Your task to perform on an android device: Open the calendar and show me this week's events? Image 0: 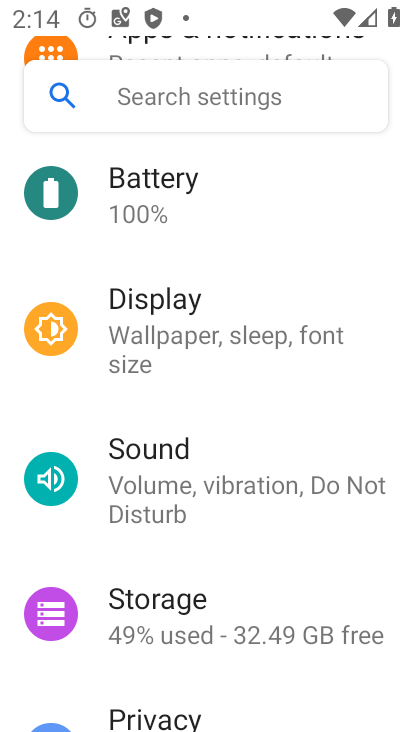
Step 0: press home button
Your task to perform on an android device: Open the calendar and show me this week's events? Image 1: 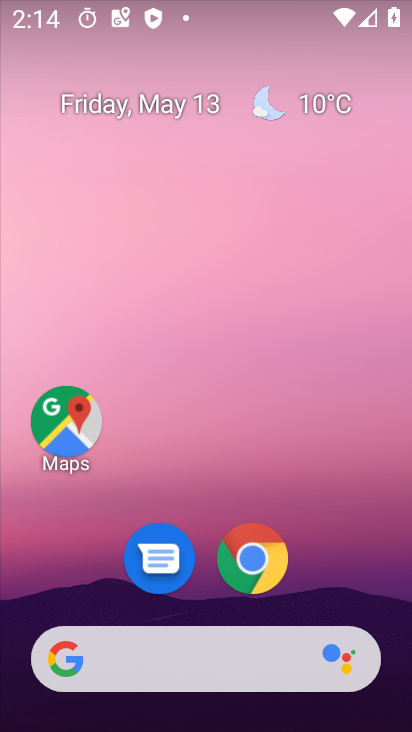
Step 1: drag from (206, 595) to (206, 199)
Your task to perform on an android device: Open the calendar and show me this week's events? Image 2: 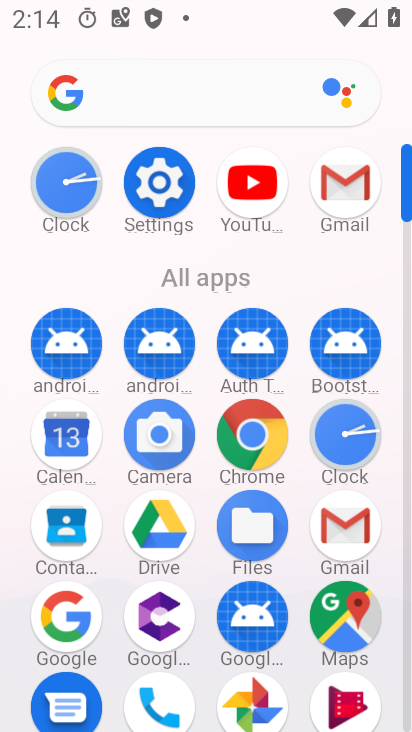
Step 2: click (50, 462)
Your task to perform on an android device: Open the calendar and show me this week's events? Image 3: 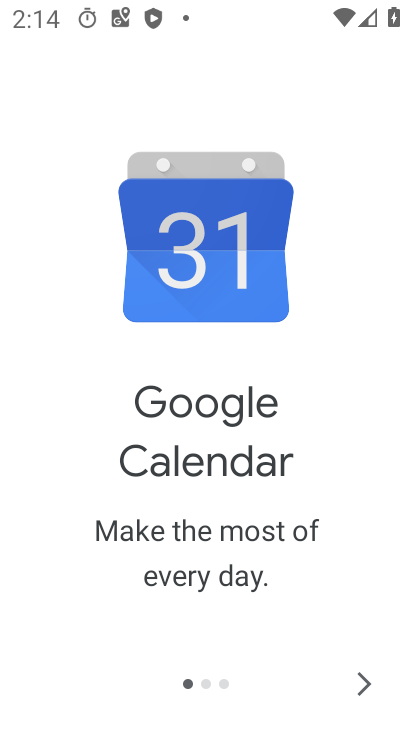
Step 3: click (376, 688)
Your task to perform on an android device: Open the calendar and show me this week's events? Image 4: 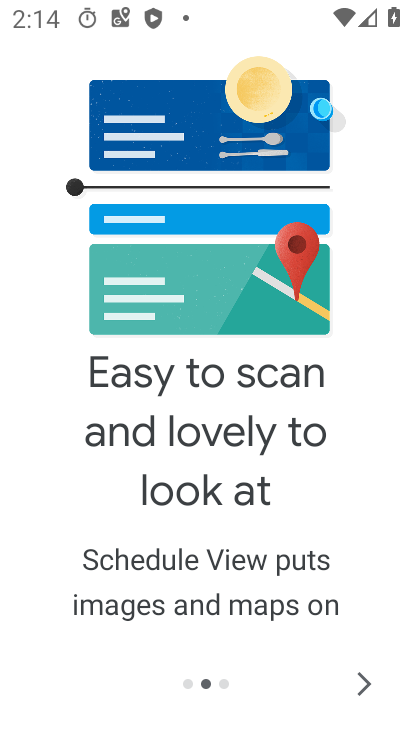
Step 4: click (365, 681)
Your task to perform on an android device: Open the calendar and show me this week's events? Image 5: 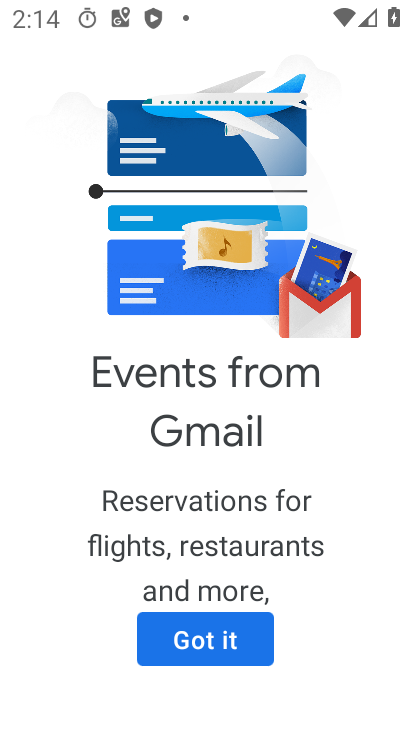
Step 5: click (366, 679)
Your task to perform on an android device: Open the calendar and show me this week's events? Image 6: 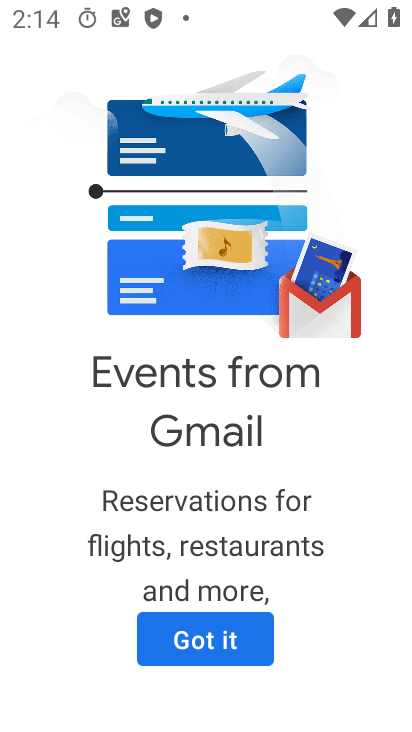
Step 6: click (221, 637)
Your task to perform on an android device: Open the calendar and show me this week's events? Image 7: 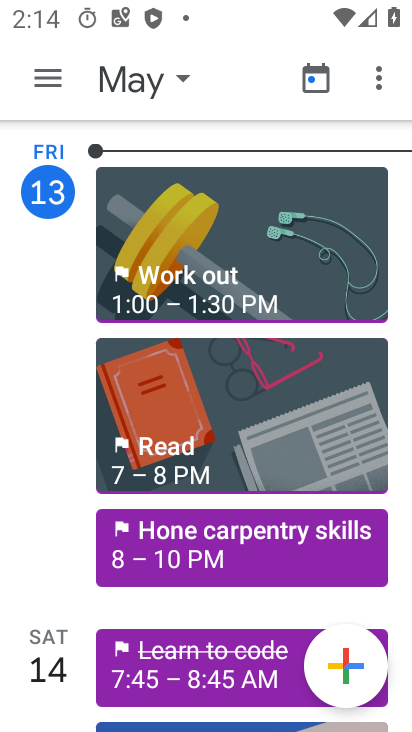
Step 7: click (164, 87)
Your task to perform on an android device: Open the calendar and show me this week's events? Image 8: 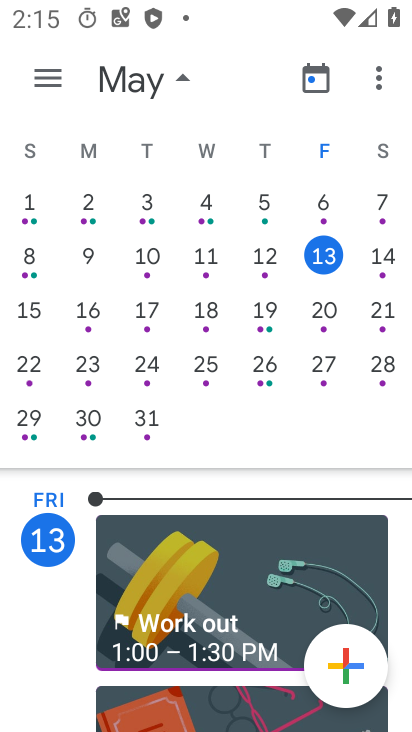
Step 8: task complete